Your task to perform on an android device: empty trash in the gmail app Image 0: 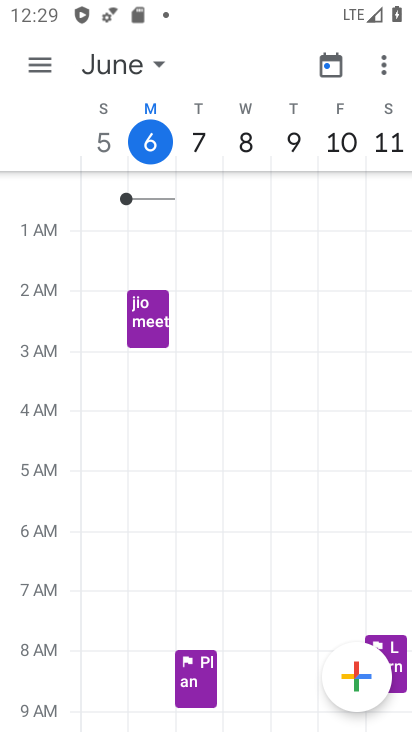
Step 0: press home button
Your task to perform on an android device: empty trash in the gmail app Image 1: 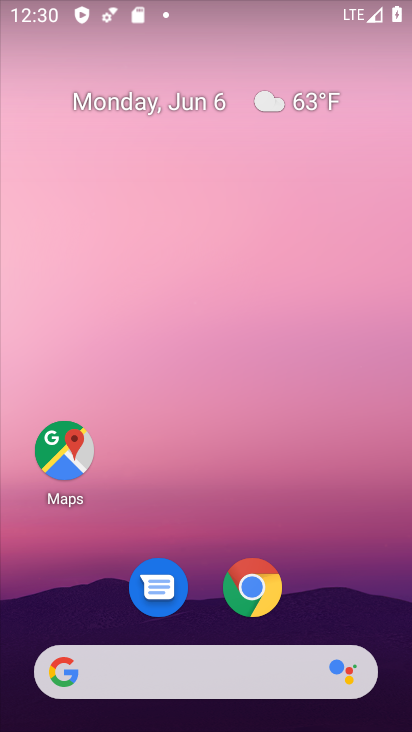
Step 1: drag from (376, 613) to (262, 200)
Your task to perform on an android device: empty trash in the gmail app Image 2: 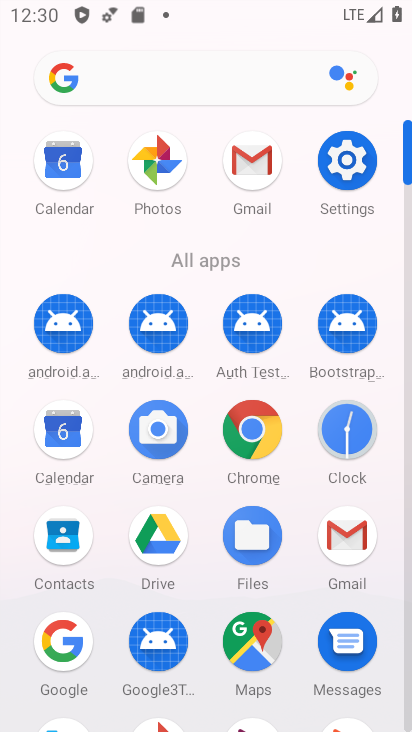
Step 2: click (249, 163)
Your task to perform on an android device: empty trash in the gmail app Image 3: 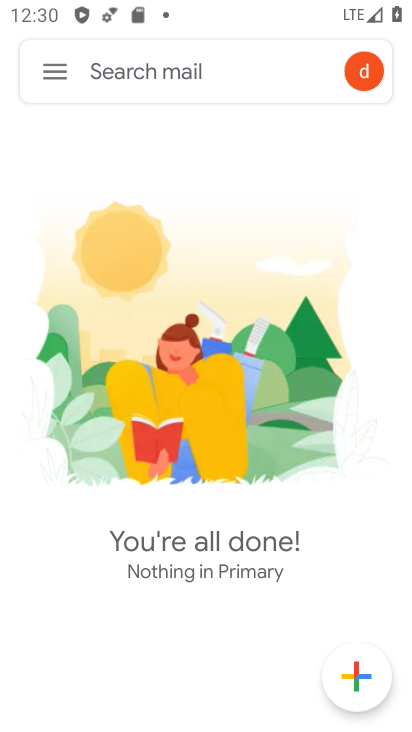
Step 3: click (52, 67)
Your task to perform on an android device: empty trash in the gmail app Image 4: 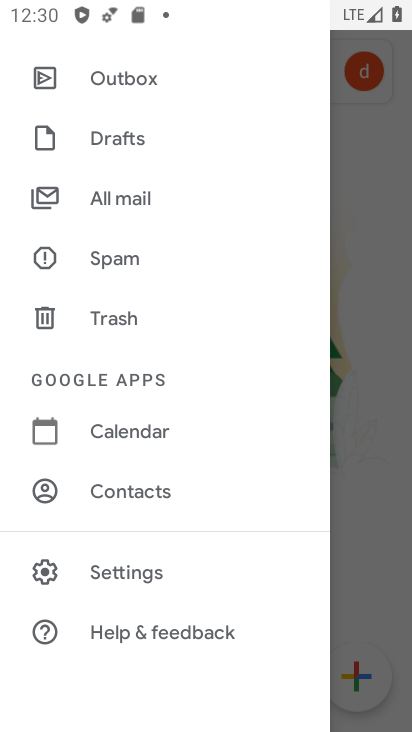
Step 4: click (116, 328)
Your task to perform on an android device: empty trash in the gmail app Image 5: 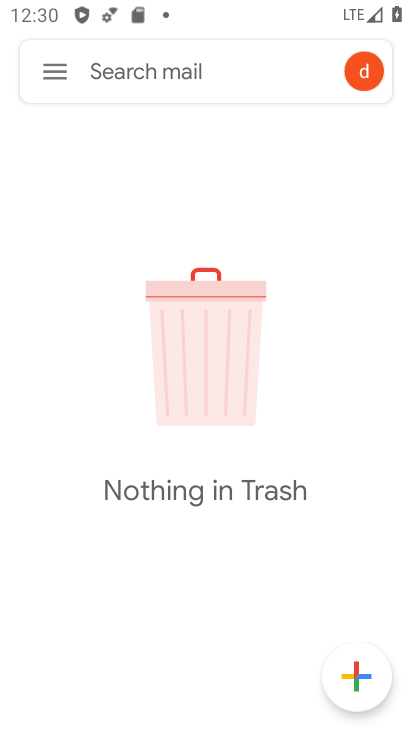
Step 5: task complete